Your task to perform on an android device: Go to battery settings Image 0: 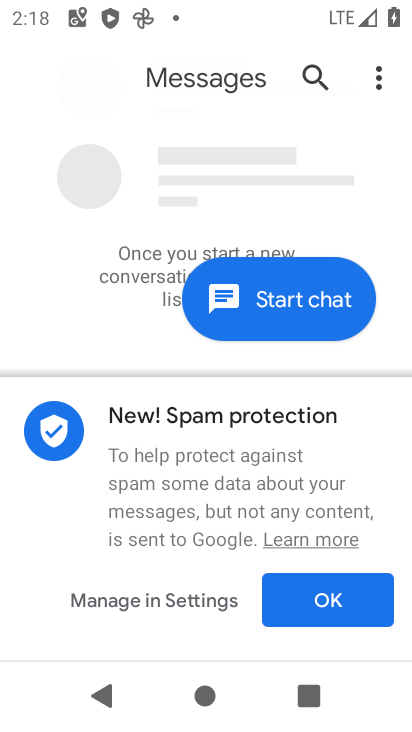
Step 0: press home button
Your task to perform on an android device: Go to battery settings Image 1: 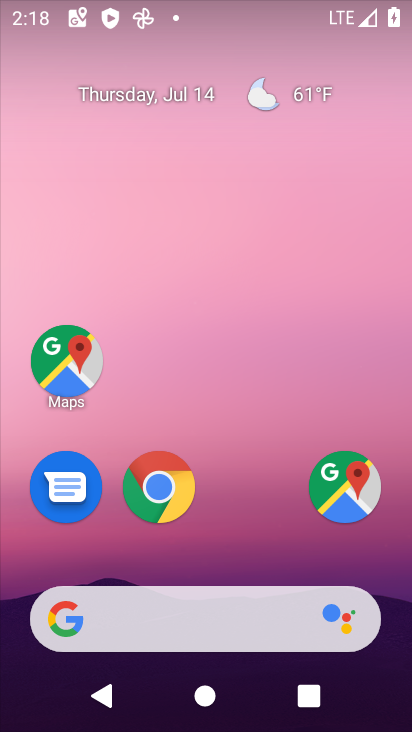
Step 1: drag from (252, 544) to (240, 164)
Your task to perform on an android device: Go to battery settings Image 2: 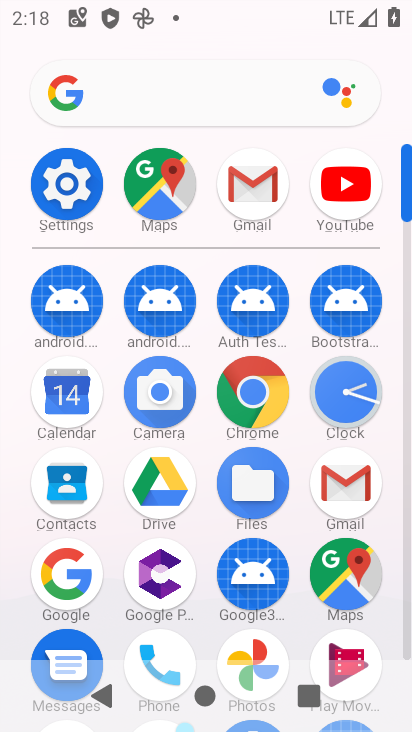
Step 2: click (71, 189)
Your task to perform on an android device: Go to battery settings Image 3: 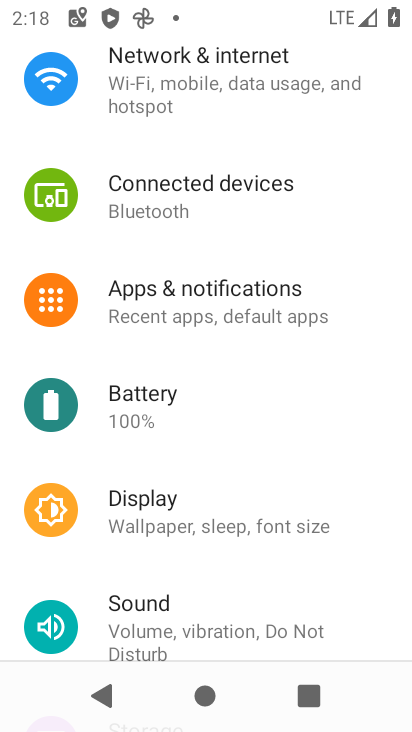
Step 3: drag from (336, 443) to (340, 363)
Your task to perform on an android device: Go to battery settings Image 4: 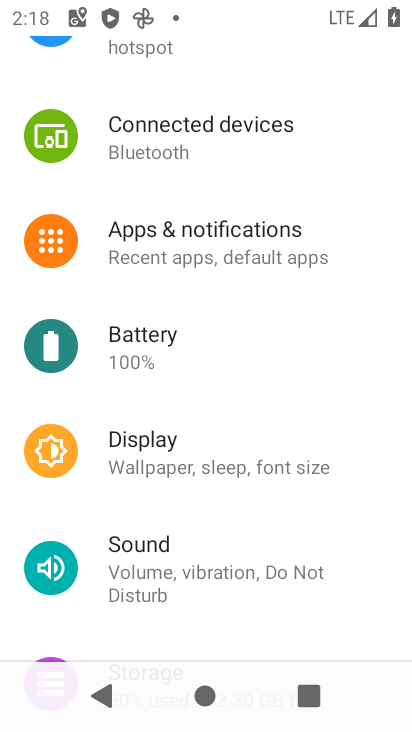
Step 4: drag from (358, 486) to (355, 388)
Your task to perform on an android device: Go to battery settings Image 5: 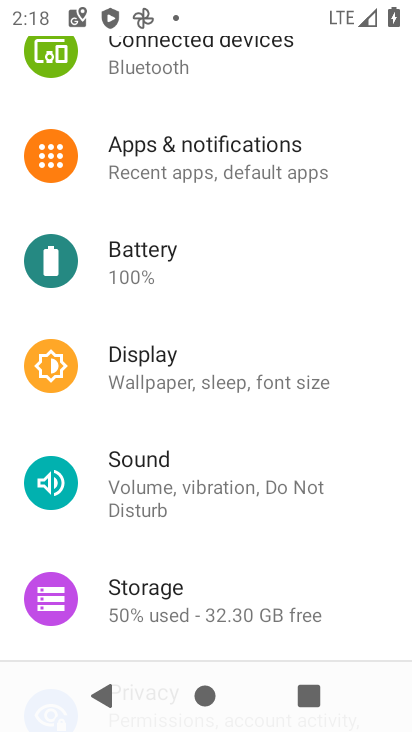
Step 5: drag from (359, 521) to (363, 401)
Your task to perform on an android device: Go to battery settings Image 6: 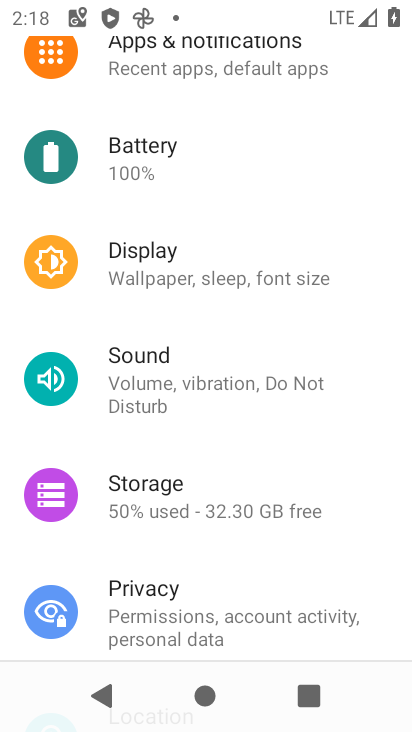
Step 6: drag from (357, 530) to (358, 449)
Your task to perform on an android device: Go to battery settings Image 7: 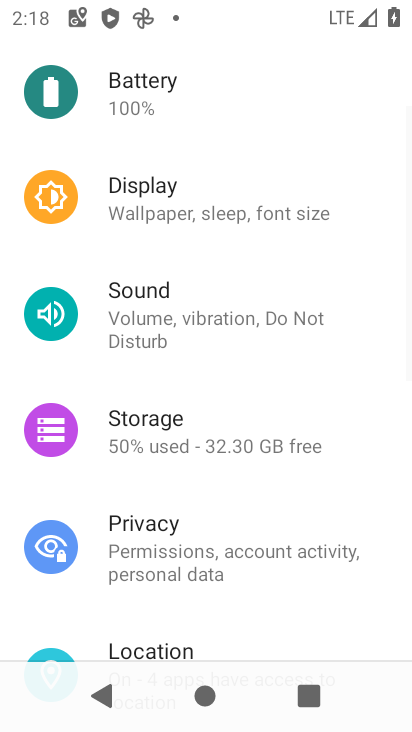
Step 7: drag from (360, 513) to (361, 419)
Your task to perform on an android device: Go to battery settings Image 8: 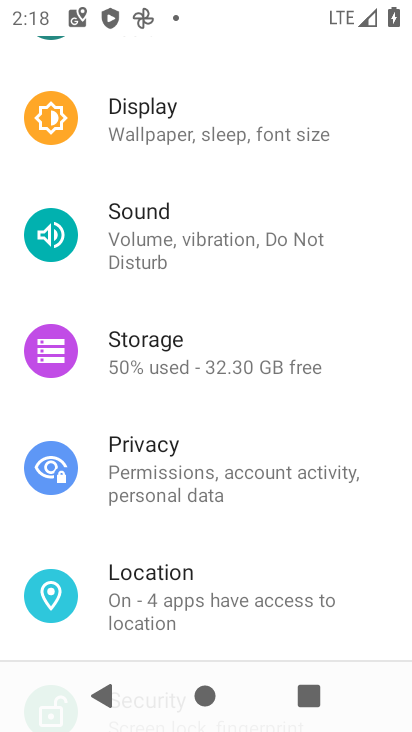
Step 8: drag from (358, 543) to (355, 434)
Your task to perform on an android device: Go to battery settings Image 9: 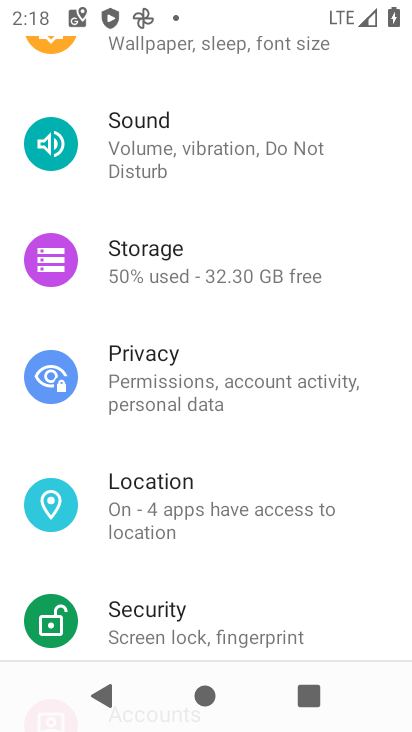
Step 9: drag from (354, 517) to (355, 394)
Your task to perform on an android device: Go to battery settings Image 10: 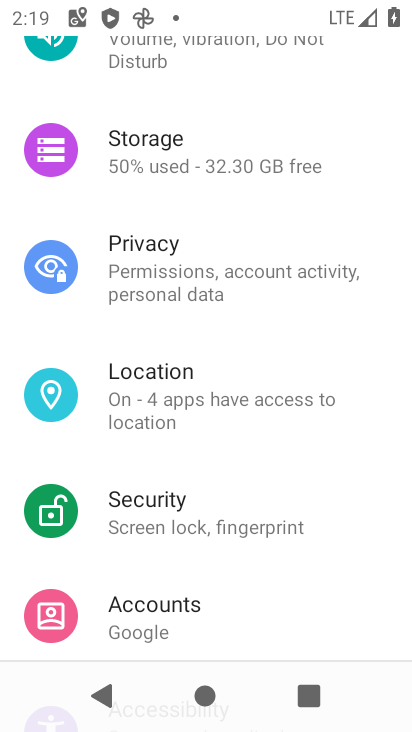
Step 10: drag from (349, 469) to (342, 329)
Your task to perform on an android device: Go to battery settings Image 11: 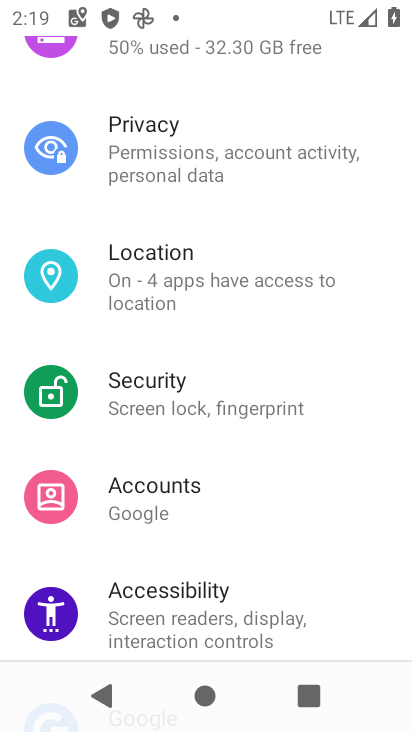
Step 11: drag from (354, 482) to (342, 376)
Your task to perform on an android device: Go to battery settings Image 12: 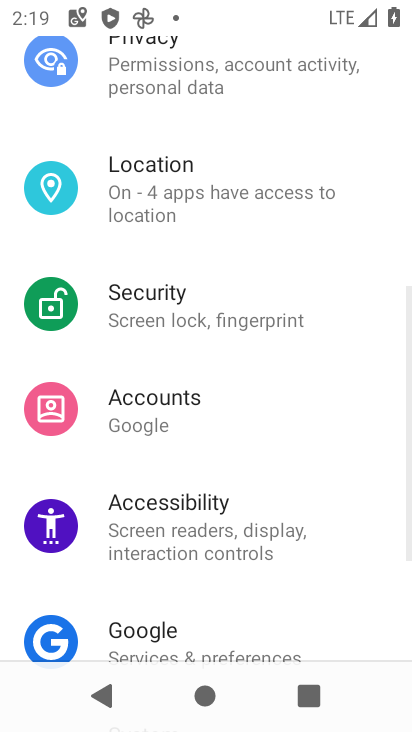
Step 12: drag from (353, 508) to (346, 395)
Your task to perform on an android device: Go to battery settings Image 13: 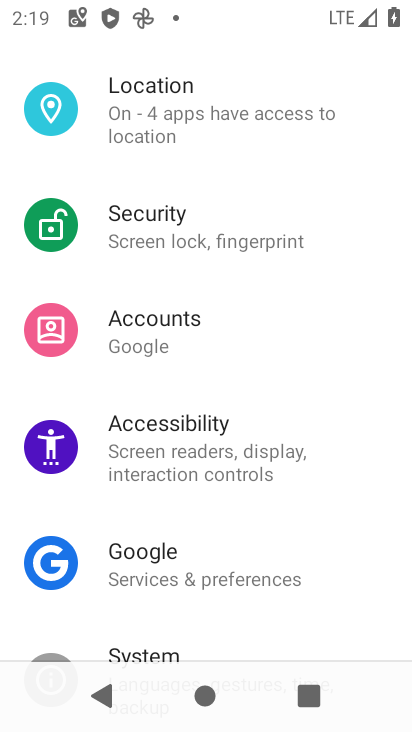
Step 13: drag from (336, 288) to (336, 417)
Your task to perform on an android device: Go to battery settings Image 14: 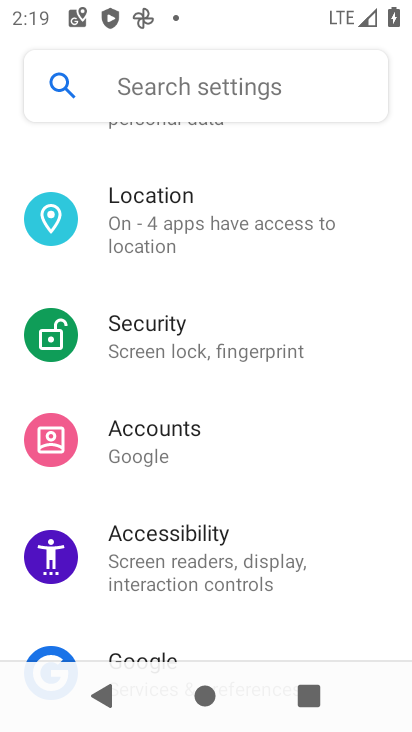
Step 14: drag from (341, 295) to (341, 389)
Your task to perform on an android device: Go to battery settings Image 15: 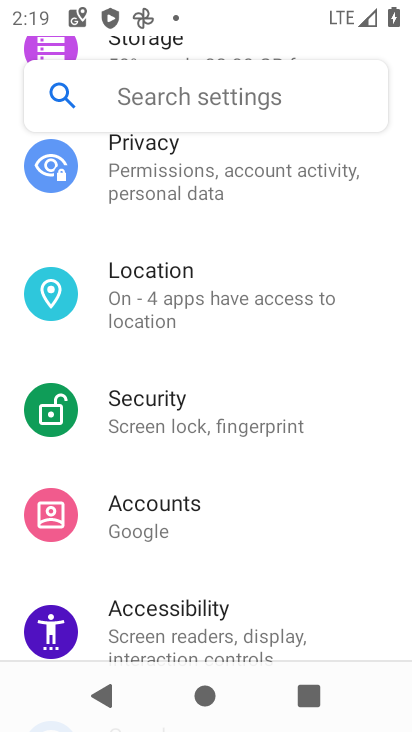
Step 15: drag from (344, 266) to (339, 401)
Your task to perform on an android device: Go to battery settings Image 16: 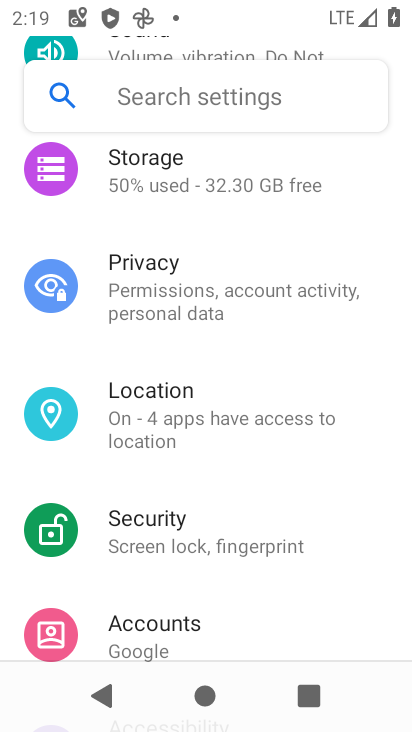
Step 16: drag from (338, 255) to (340, 415)
Your task to perform on an android device: Go to battery settings Image 17: 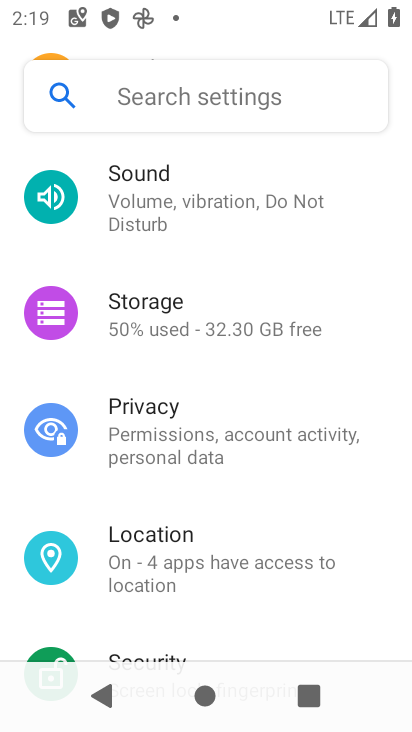
Step 17: drag from (360, 264) to (367, 408)
Your task to perform on an android device: Go to battery settings Image 18: 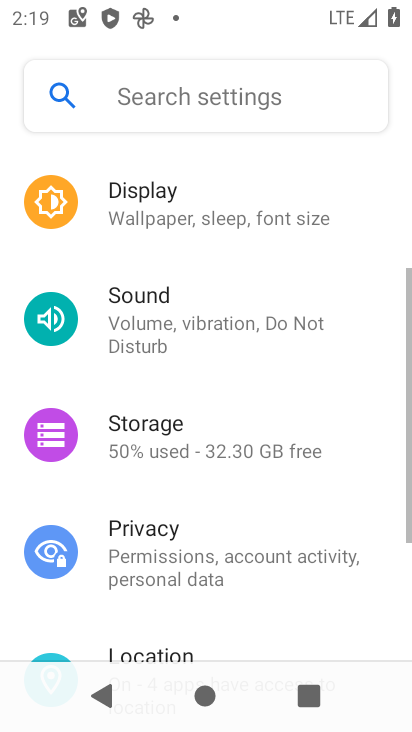
Step 18: drag from (366, 233) to (358, 408)
Your task to perform on an android device: Go to battery settings Image 19: 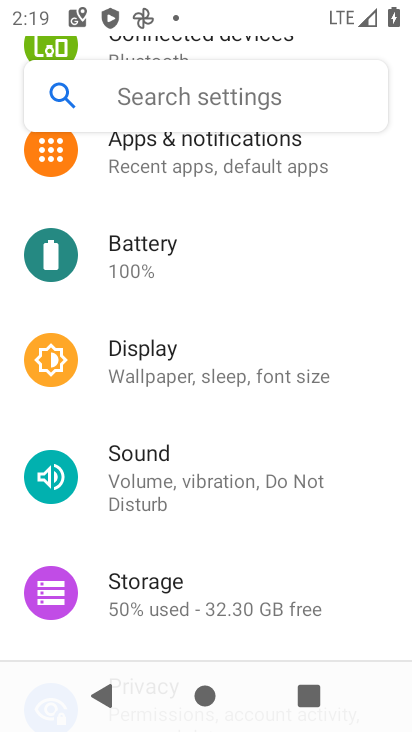
Step 19: drag from (353, 251) to (353, 373)
Your task to perform on an android device: Go to battery settings Image 20: 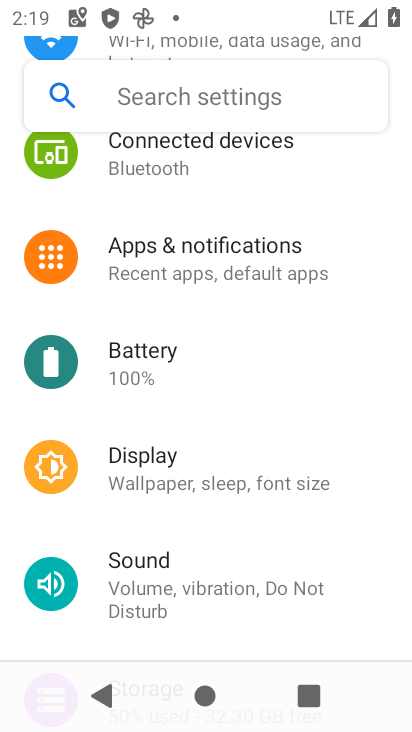
Step 20: click (288, 387)
Your task to perform on an android device: Go to battery settings Image 21: 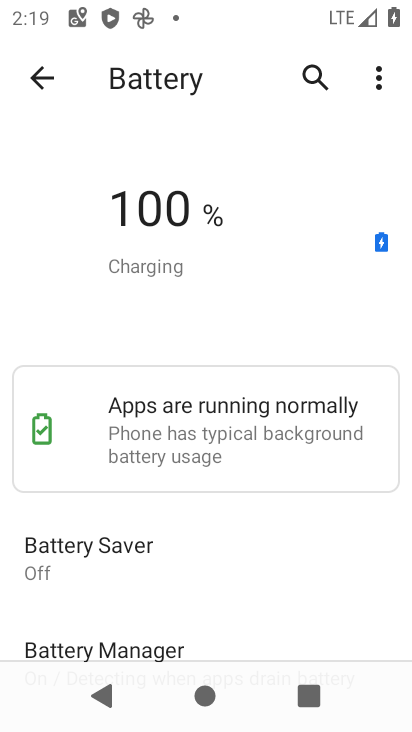
Step 21: task complete